Your task to perform on an android device: Add dell xps to the cart on newegg Image 0: 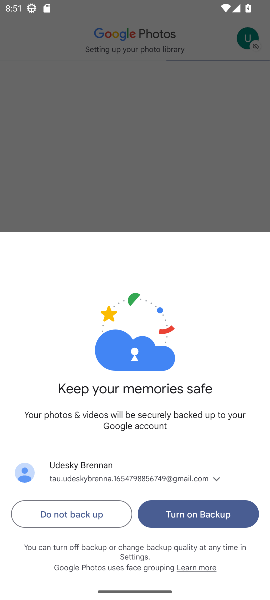
Step 0: press home button
Your task to perform on an android device: Add dell xps to the cart on newegg Image 1: 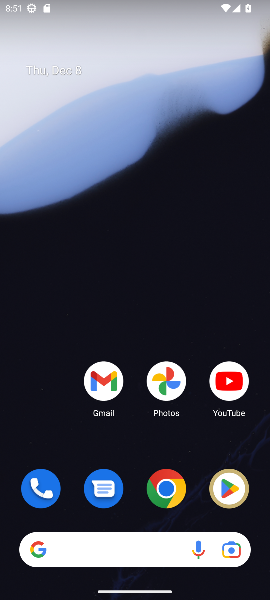
Step 1: drag from (109, 555) to (115, 284)
Your task to perform on an android device: Add dell xps to the cart on newegg Image 2: 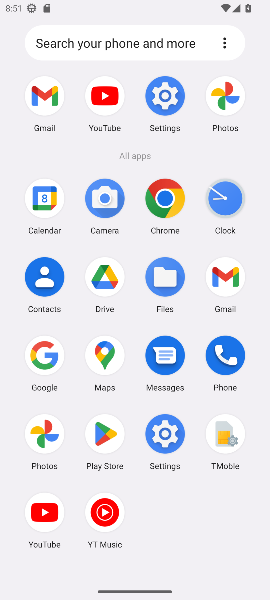
Step 2: click (39, 355)
Your task to perform on an android device: Add dell xps to the cart on newegg Image 3: 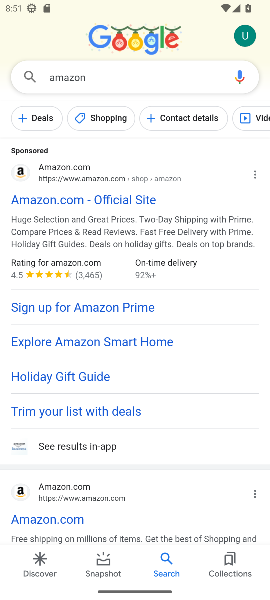
Step 3: click (65, 80)
Your task to perform on an android device: Add dell xps to the cart on newegg Image 4: 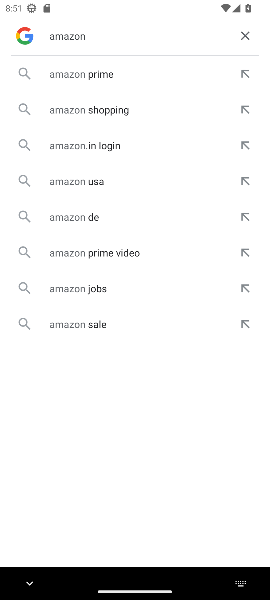
Step 4: click (247, 38)
Your task to perform on an android device: Add dell xps to the cart on newegg Image 5: 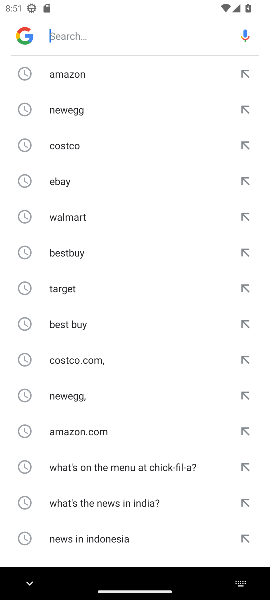
Step 5: click (73, 111)
Your task to perform on an android device: Add dell xps to the cart on newegg Image 6: 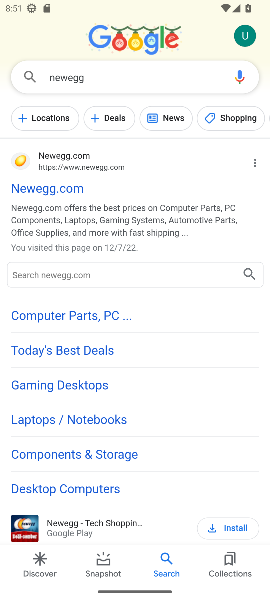
Step 6: click (53, 187)
Your task to perform on an android device: Add dell xps to the cart on newegg Image 7: 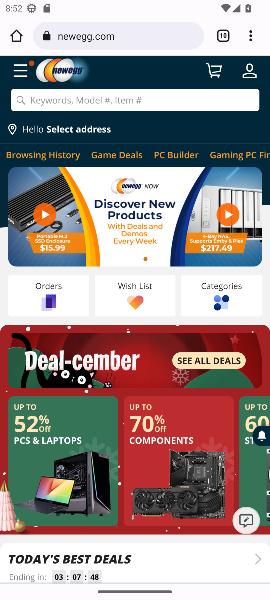
Step 7: type "dell xps"
Your task to perform on an android device: Add dell xps to the cart on newegg Image 8: 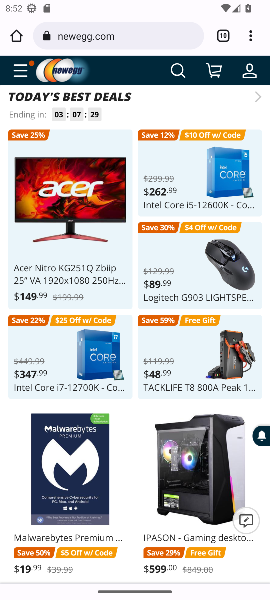
Step 8: click (184, 72)
Your task to perform on an android device: Add dell xps to the cart on newegg Image 9: 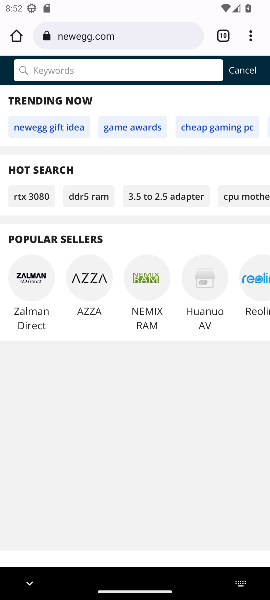
Step 9: type "dell xps"
Your task to perform on an android device: Add dell xps to the cart on newegg Image 10: 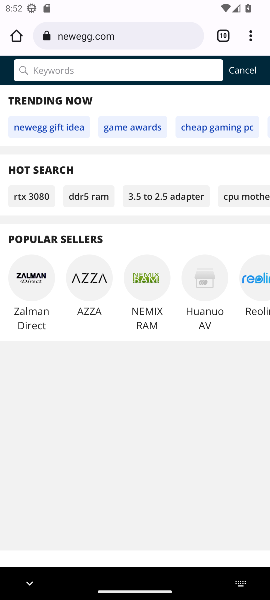
Step 10: click (21, 67)
Your task to perform on an android device: Add dell xps to the cart on newegg Image 11: 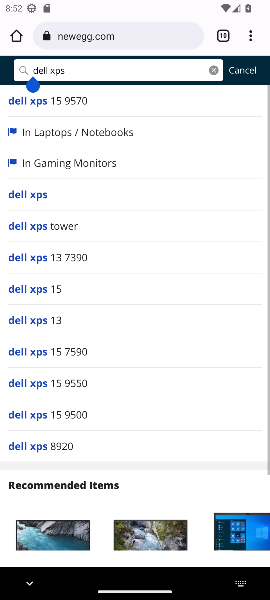
Step 11: click (35, 197)
Your task to perform on an android device: Add dell xps to the cart on newegg Image 12: 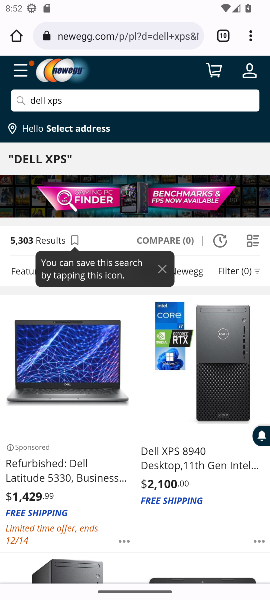
Step 12: click (42, 475)
Your task to perform on an android device: Add dell xps to the cart on newegg Image 13: 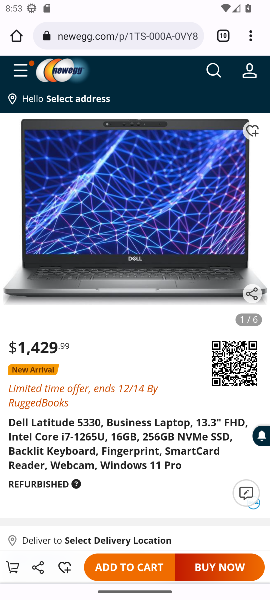
Step 13: click (112, 567)
Your task to perform on an android device: Add dell xps to the cart on newegg Image 14: 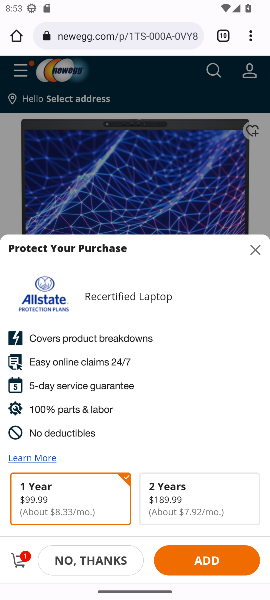
Step 14: task complete